Your task to perform on an android device: What's on my calendar tomorrow? Image 0: 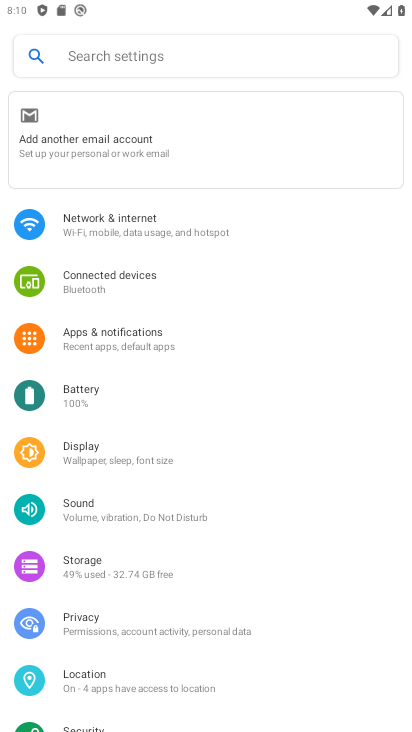
Step 0: press home button
Your task to perform on an android device: What's on my calendar tomorrow? Image 1: 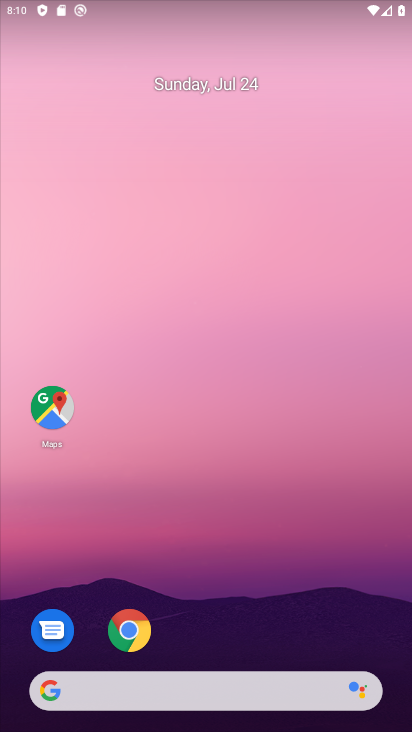
Step 1: drag from (203, 574) to (239, 77)
Your task to perform on an android device: What's on my calendar tomorrow? Image 2: 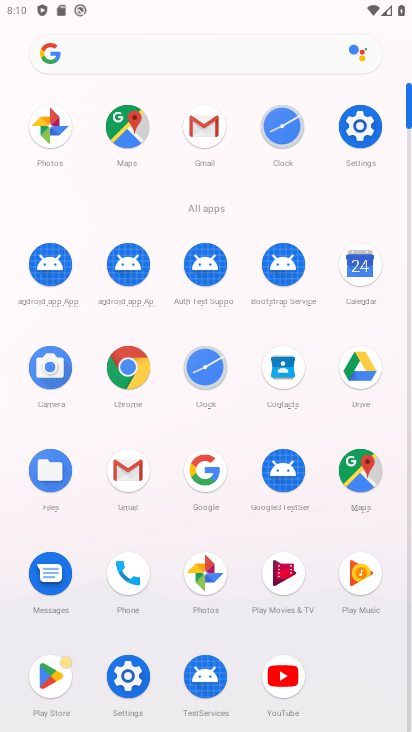
Step 2: click (359, 251)
Your task to perform on an android device: What's on my calendar tomorrow? Image 3: 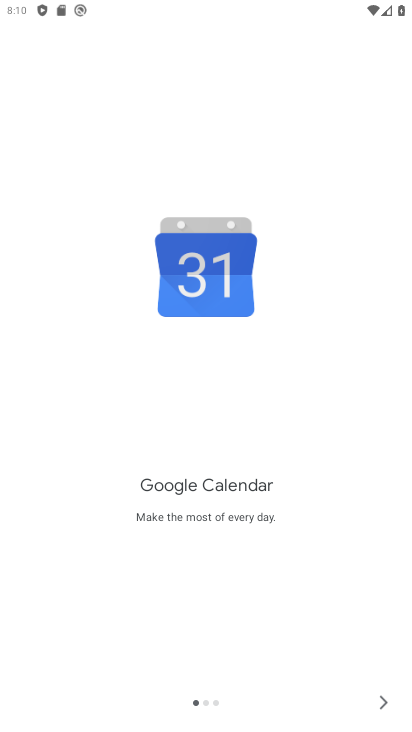
Step 3: click (353, 703)
Your task to perform on an android device: What's on my calendar tomorrow? Image 4: 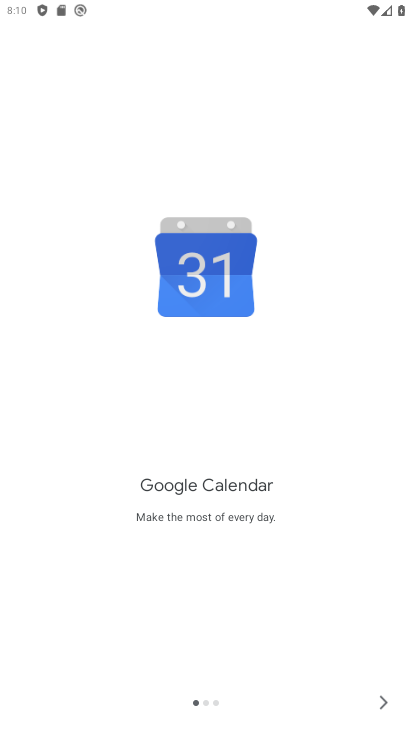
Step 4: click (384, 705)
Your task to perform on an android device: What's on my calendar tomorrow? Image 5: 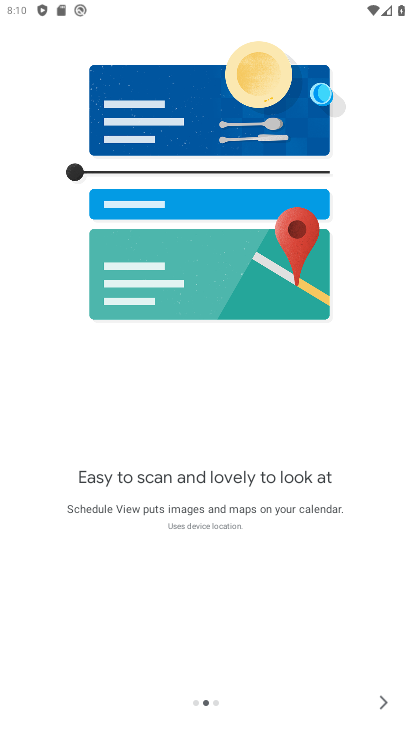
Step 5: click (384, 705)
Your task to perform on an android device: What's on my calendar tomorrow? Image 6: 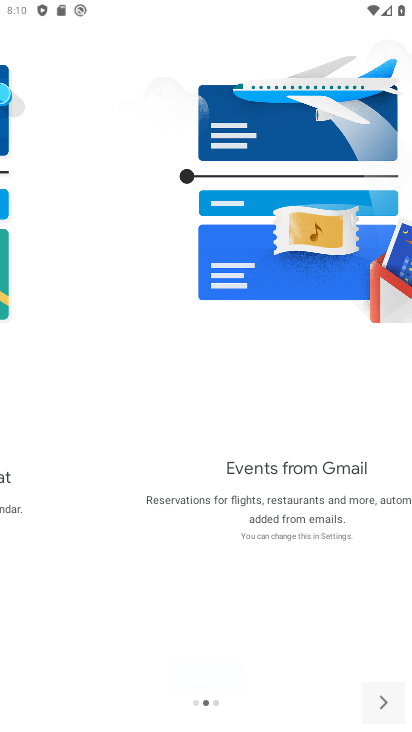
Step 6: click (384, 705)
Your task to perform on an android device: What's on my calendar tomorrow? Image 7: 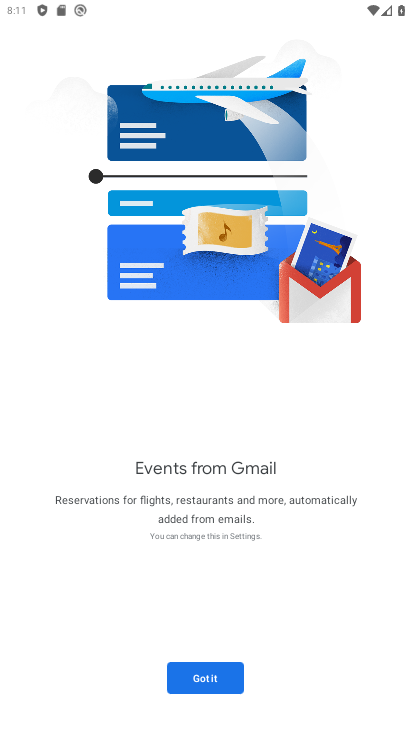
Step 7: click (175, 670)
Your task to perform on an android device: What's on my calendar tomorrow? Image 8: 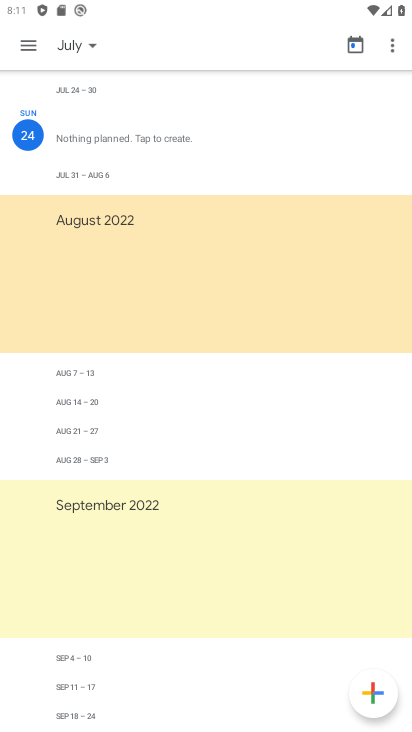
Step 8: click (37, 42)
Your task to perform on an android device: What's on my calendar tomorrow? Image 9: 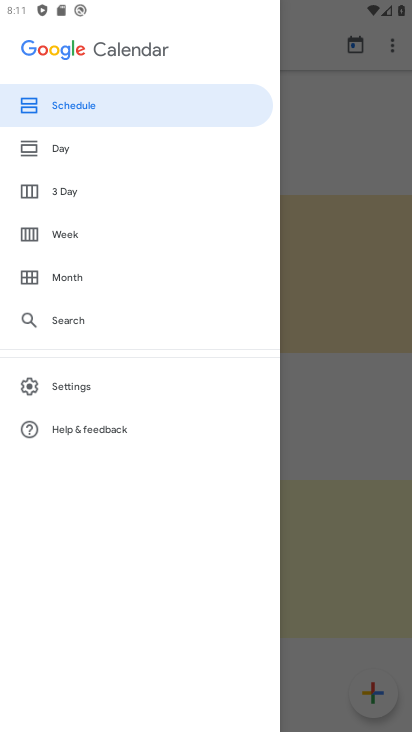
Step 9: click (66, 279)
Your task to perform on an android device: What's on my calendar tomorrow? Image 10: 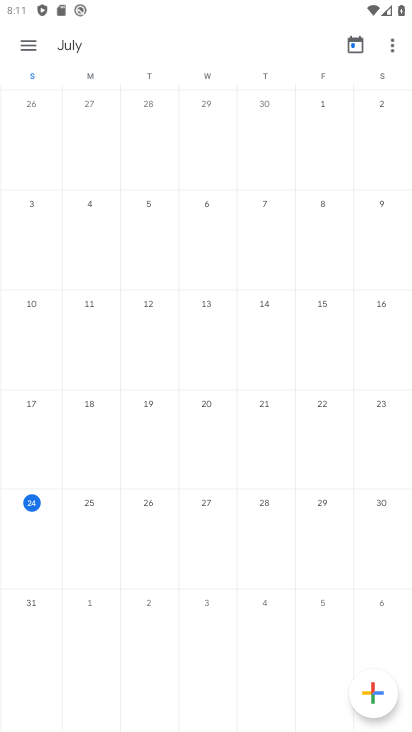
Step 10: click (148, 511)
Your task to perform on an android device: What's on my calendar tomorrow? Image 11: 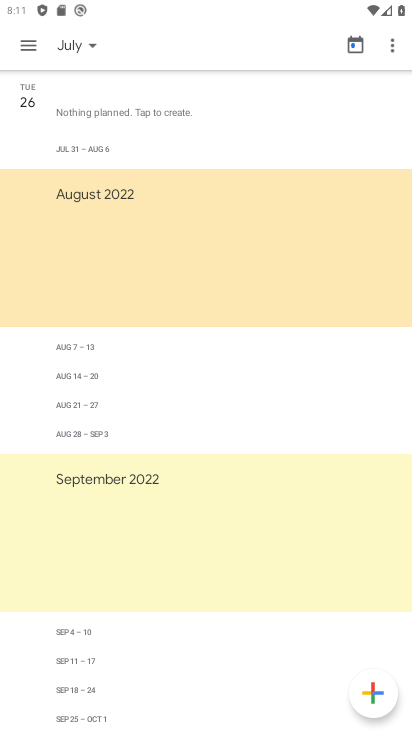
Step 11: task complete